Your task to perform on an android device: Open Yahoo.com Image 0: 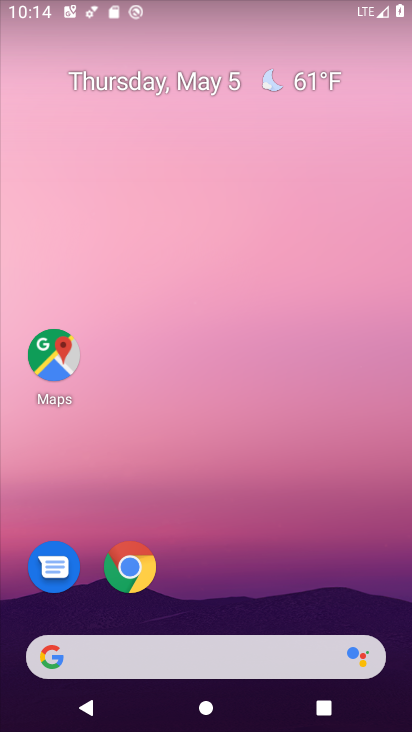
Step 0: click (139, 572)
Your task to perform on an android device: Open Yahoo.com Image 1: 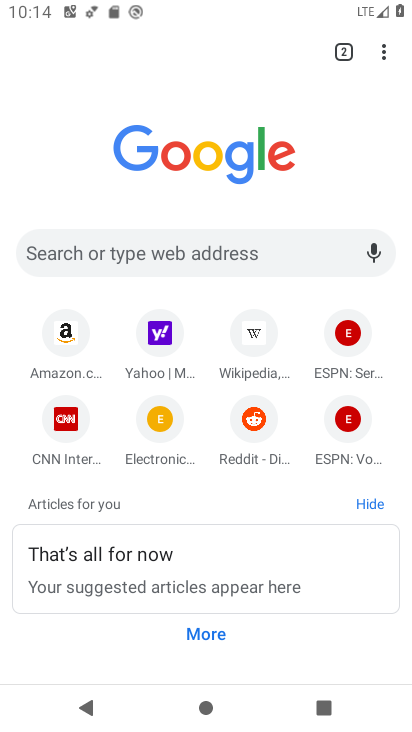
Step 1: click (159, 340)
Your task to perform on an android device: Open Yahoo.com Image 2: 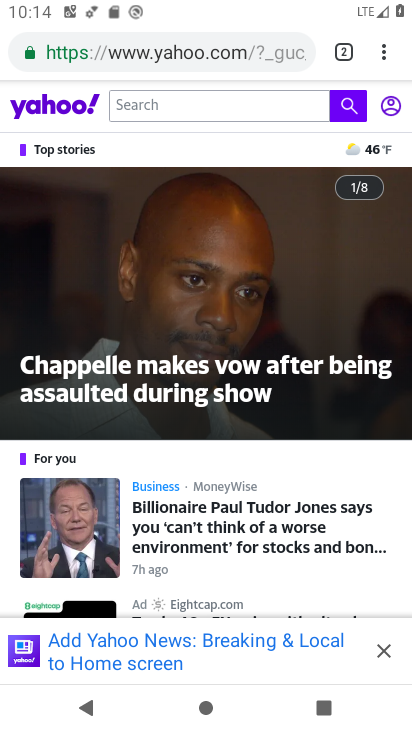
Step 2: task complete